Your task to perform on an android device: check battery use Image 0: 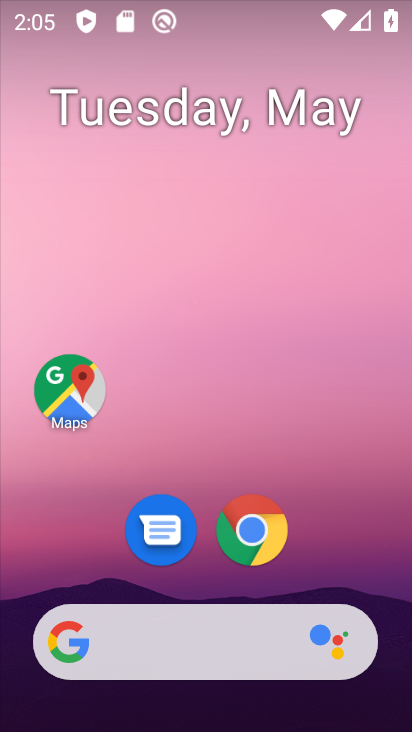
Step 0: drag from (211, 572) to (137, 0)
Your task to perform on an android device: check battery use Image 1: 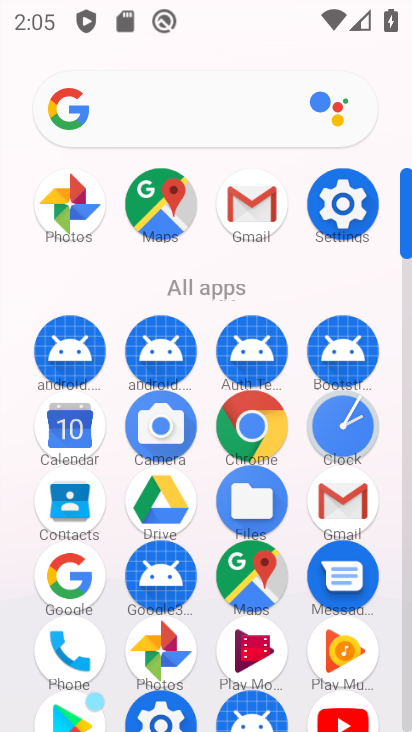
Step 1: click (337, 192)
Your task to perform on an android device: check battery use Image 2: 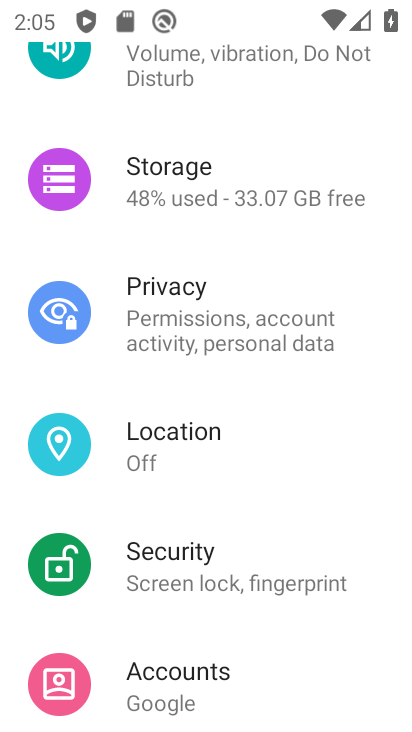
Step 2: drag from (256, 527) to (198, 123)
Your task to perform on an android device: check battery use Image 3: 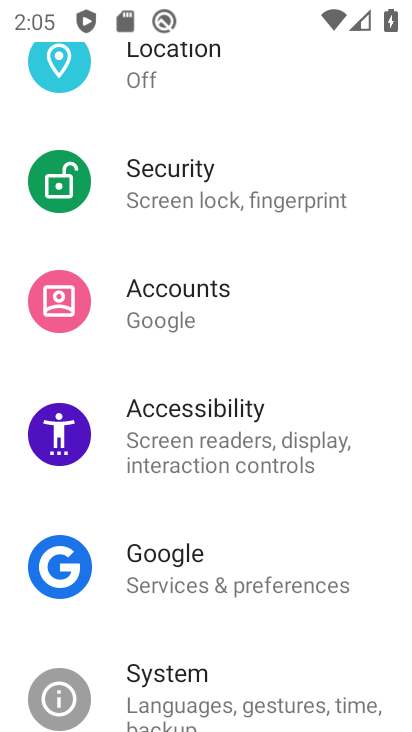
Step 3: drag from (200, 566) to (188, 23)
Your task to perform on an android device: check battery use Image 4: 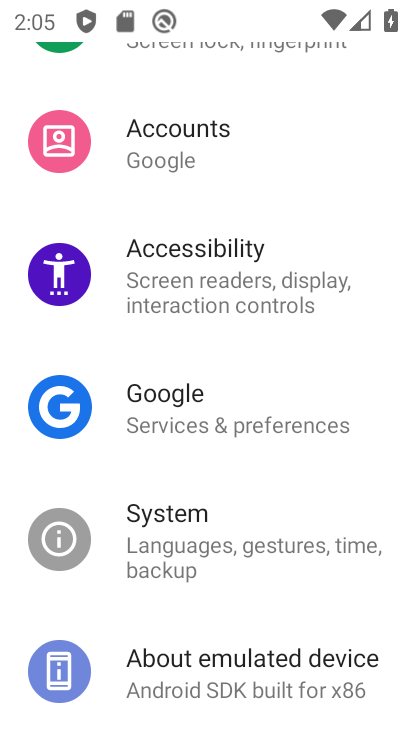
Step 4: drag from (190, 288) to (191, 730)
Your task to perform on an android device: check battery use Image 5: 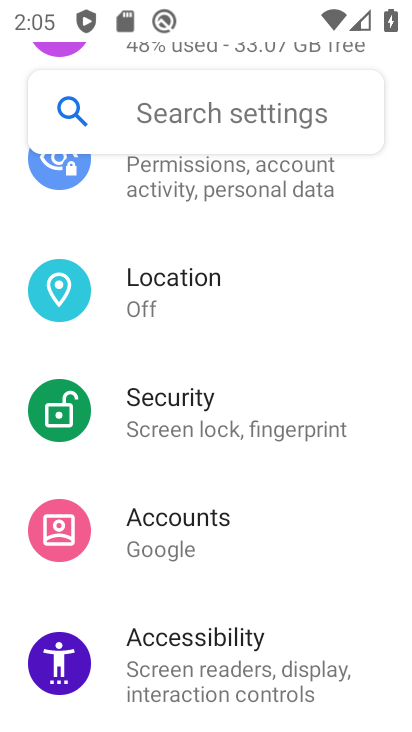
Step 5: drag from (211, 205) to (199, 585)
Your task to perform on an android device: check battery use Image 6: 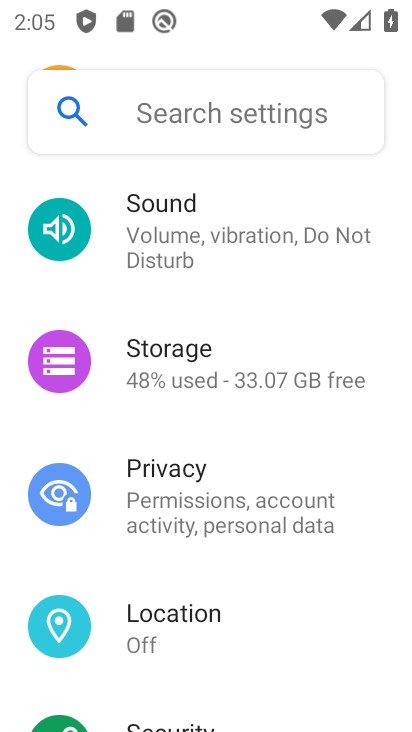
Step 6: drag from (198, 263) to (188, 683)
Your task to perform on an android device: check battery use Image 7: 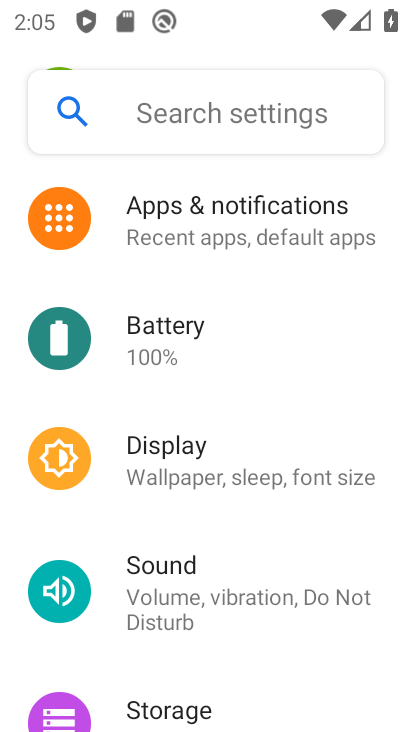
Step 7: click (183, 343)
Your task to perform on an android device: check battery use Image 8: 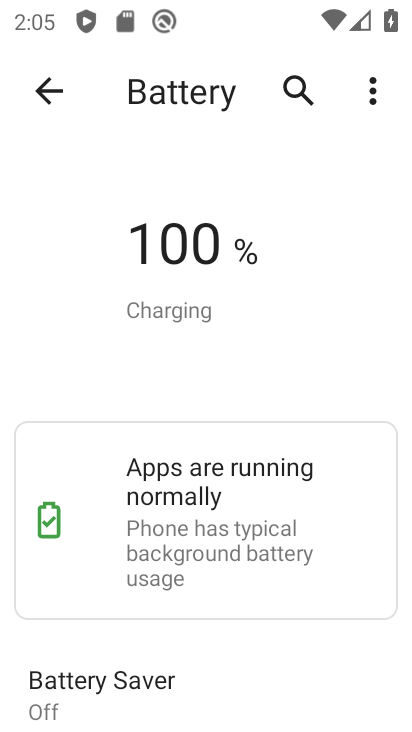
Step 8: task complete